Your task to perform on an android device: install app "Truecaller" Image 0: 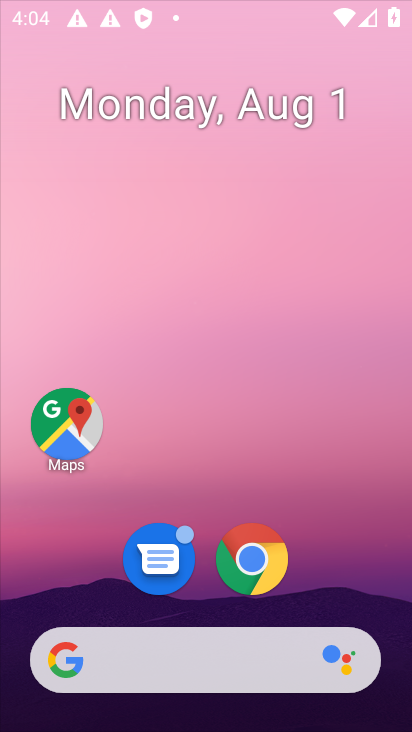
Step 0: drag from (199, 14) to (130, 5)
Your task to perform on an android device: install app "Truecaller" Image 1: 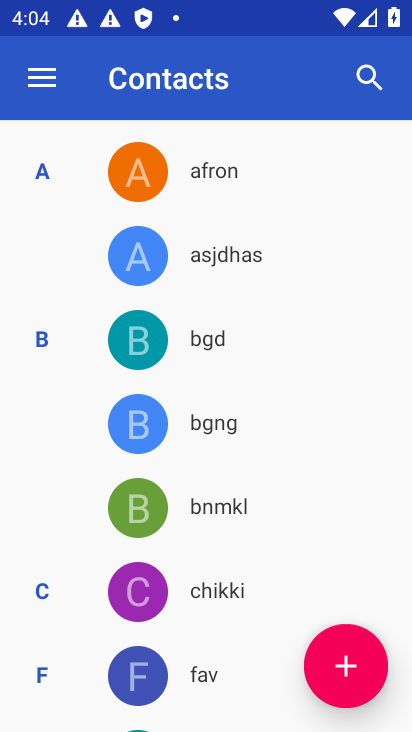
Step 1: press home button
Your task to perform on an android device: install app "Truecaller" Image 2: 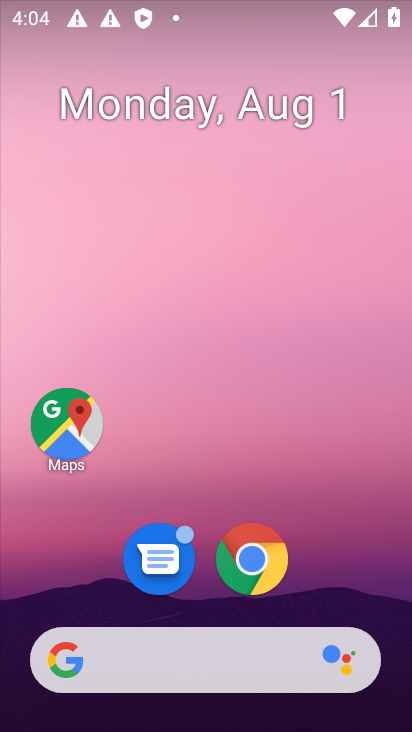
Step 2: drag from (221, 610) to (202, 99)
Your task to perform on an android device: install app "Truecaller" Image 3: 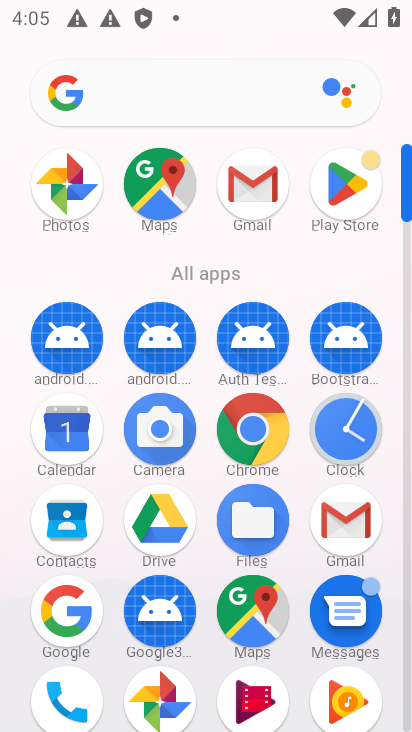
Step 3: click (355, 219)
Your task to perform on an android device: install app "Truecaller" Image 4: 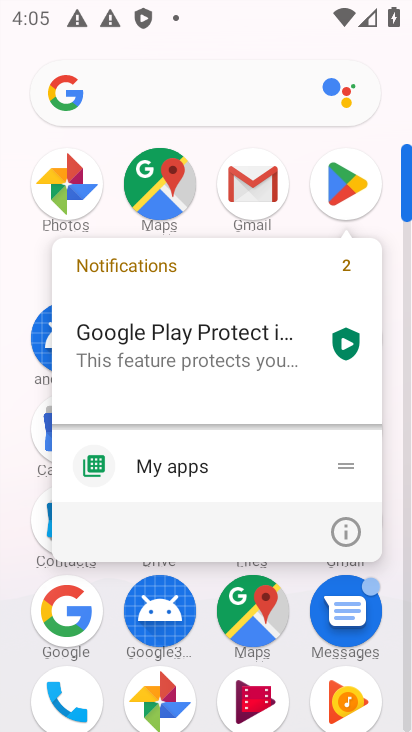
Step 4: click (350, 205)
Your task to perform on an android device: install app "Truecaller" Image 5: 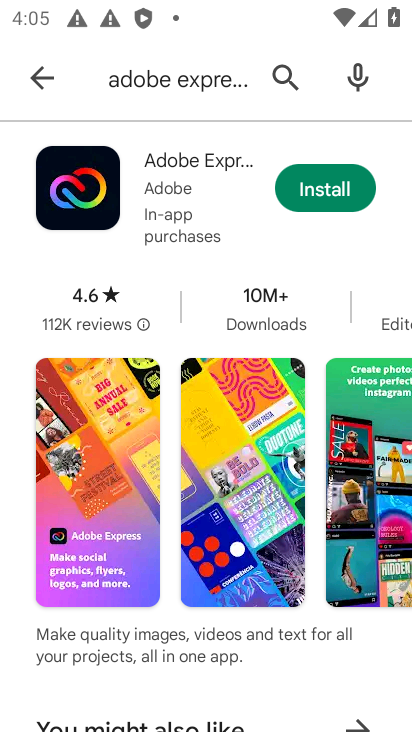
Step 5: click (177, 76)
Your task to perform on an android device: install app "Truecaller" Image 6: 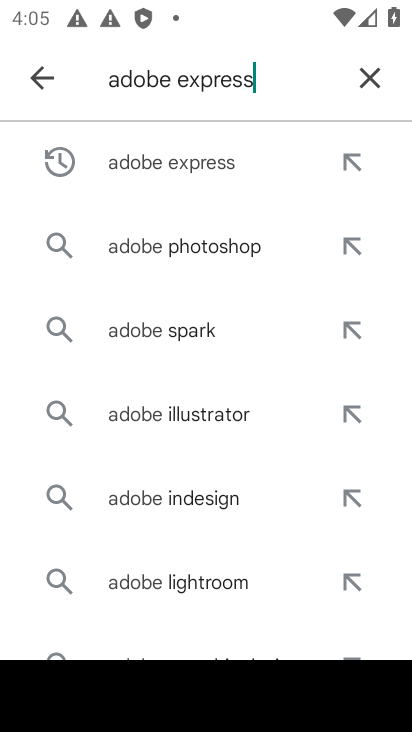
Step 6: click (362, 75)
Your task to perform on an android device: install app "Truecaller" Image 7: 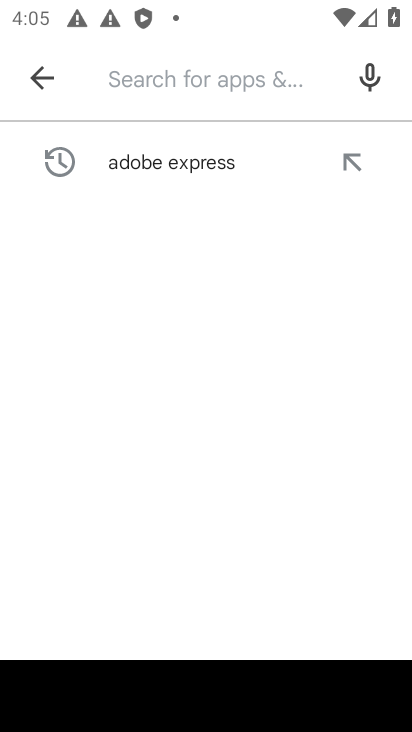
Step 7: type "Truecaller"
Your task to perform on an android device: install app "Truecaller" Image 8: 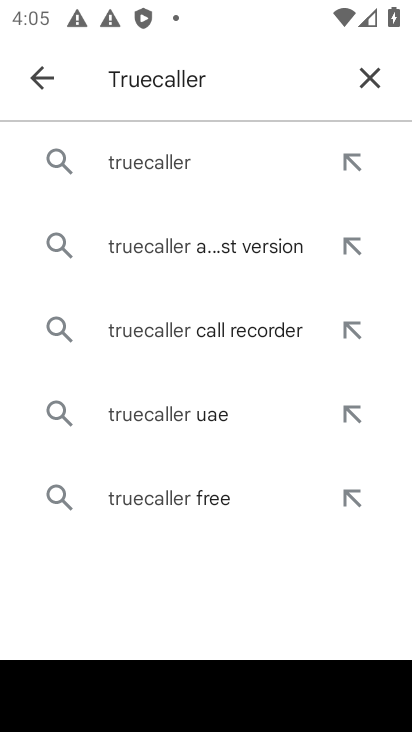
Step 8: click (177, 158)
Your task to perform on an android device: install app "Truecaller" Image 9: 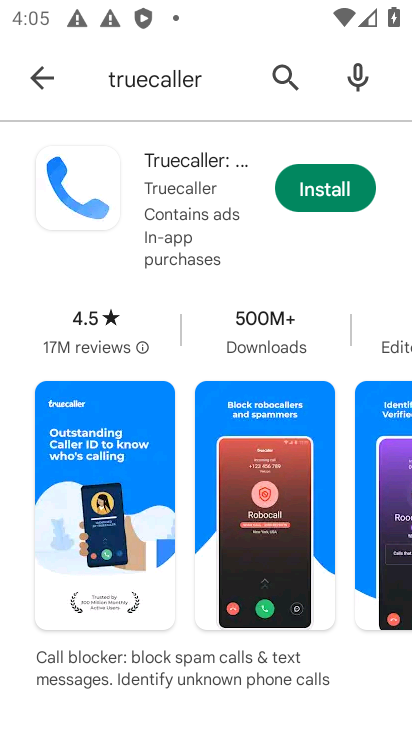
Step 9: click (318, 194)
Your task to perform on an android device: install app "Truecaller" Image 10: 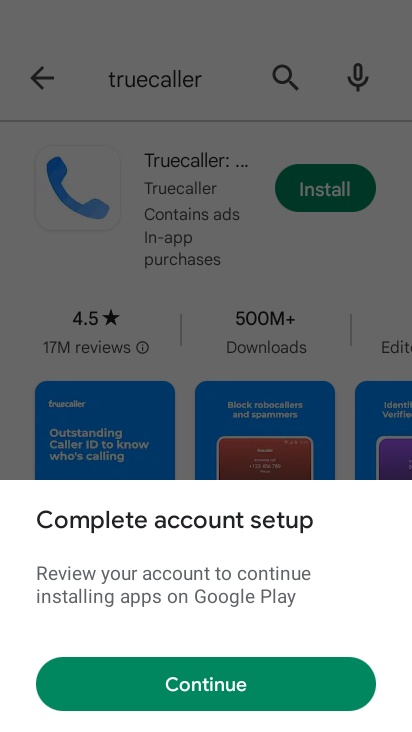
Step 10: click (249, 680)
Your task to perform on an android device: install app "Truecaller" Image 11: 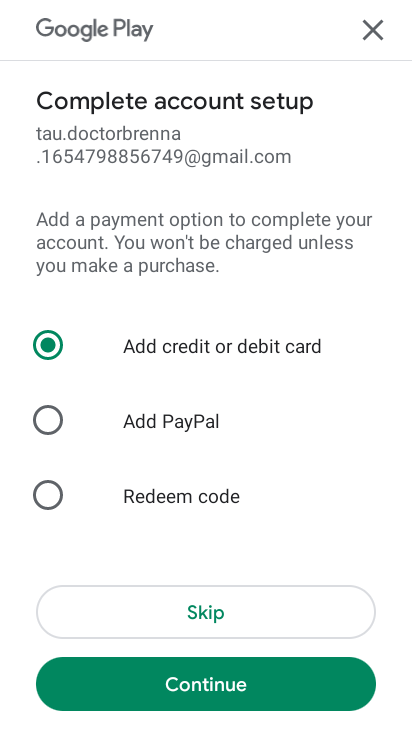
Step 11: click (185, 619)
Your task to perform on an android device: install app "Truecaller" Image 12: 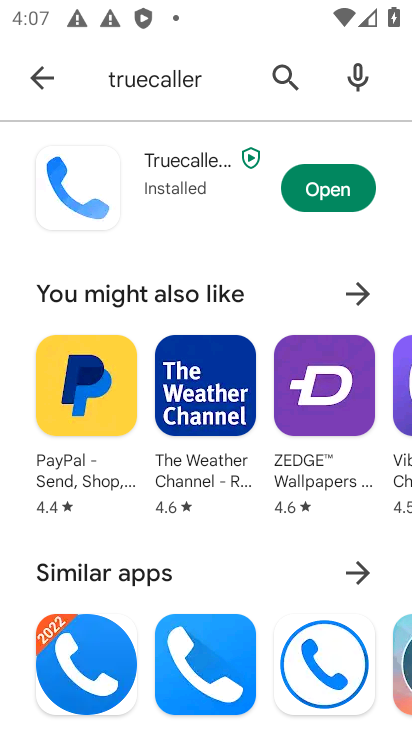
Step 12: task complete